Your task to perform on an android device: open app "Paramount+ | Peak Streaming" Image 0: 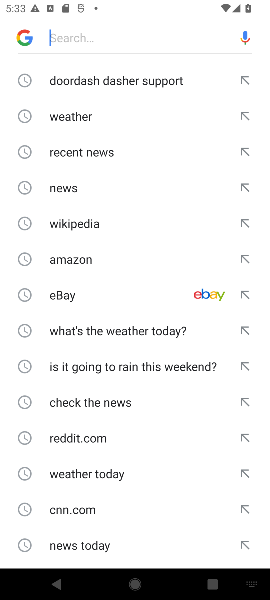
Step 0: press home button
Your task to perform on an android device: open app "Paramount+ | Peak Streaming" Image 1: 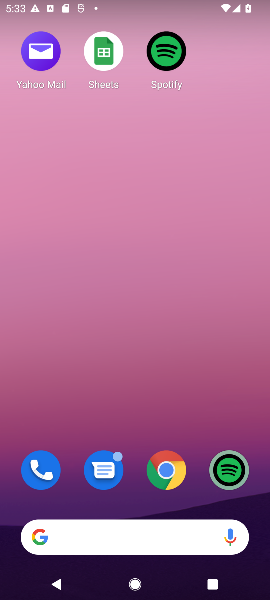
Step 1: drag from (115, 486) to (114, 264)
Your task to perform on an android device: open app "Paramount+ | Peak Streaming" Image 2: 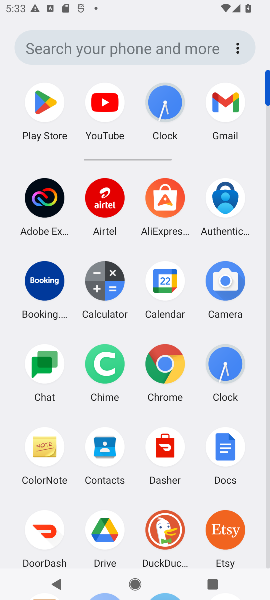
Step 2: click (38, 108)
Your task to perform on an android device: open app "Paramount+ | Peak Streaming" Image 3: 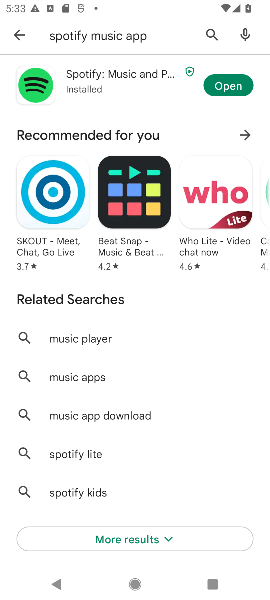
Step 3: click (16, 42)
Your task to perform on an android device: open app "Paramount+ | Peak Streaming" Image 4: 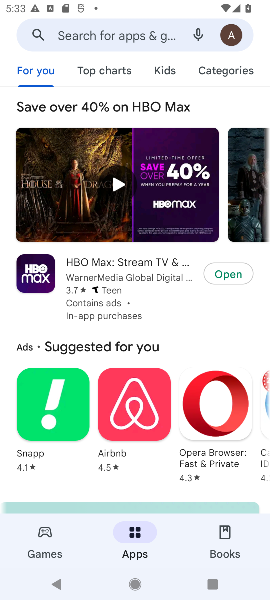
Step 4: click (108, 34)
Your task to perform on an android device: open app "Paramount+ | Peak Streaming" Image 5: 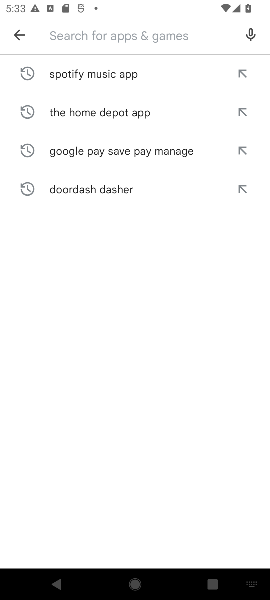
Step 5: type "Paramount+  "
Your task to perform on an android device: open app "Paramount+ | Peak Streaming" Image 6: 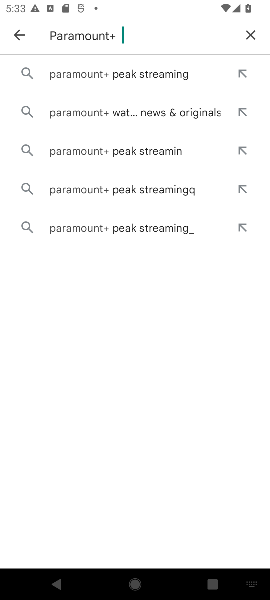
Step 6: click (73, 67)
Your task to perform on an android device: open app "Paramount+ | Peak Streaming" Image 7: 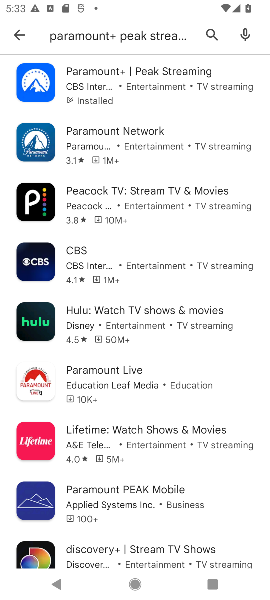
Step 7: click (110, 76)
Your task to perform on an android device: open app "Paramount+ | Peak Streaming" Image 8: 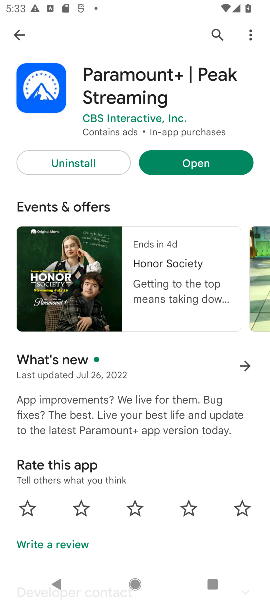
Step 8: click (197, 161)
Your task to perform on an android device: open app "Paramount+ | Peak Streaming" Image 9: 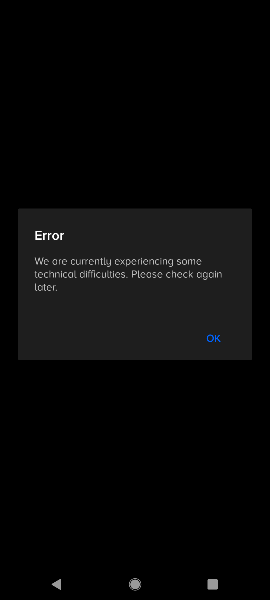
Step 9: task complete